Your task to perform on an android device: turn on priority inbox in the gmail app Image 0: 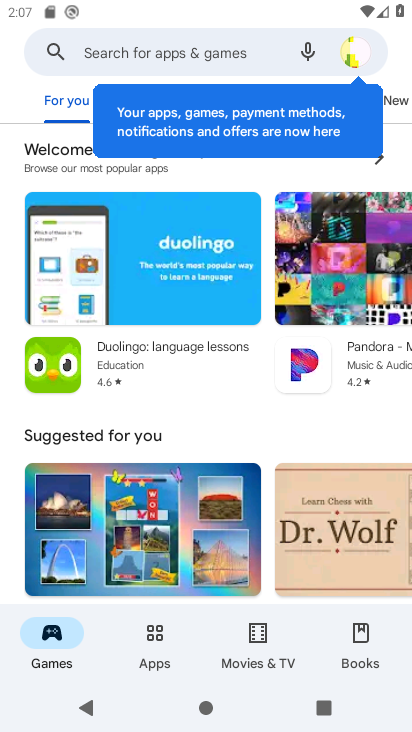
Step 0: press home button
Your task to perform on an android device: turn on priority inbox in the gmail app Image 1: 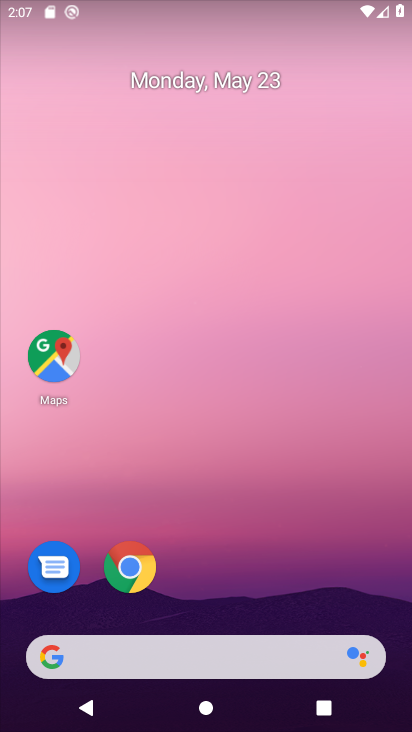
Step 1: drag from (240, 524) to (219, 149)
Your task to perform on an android device: turn on priority inbox in the gmail app Image 2: 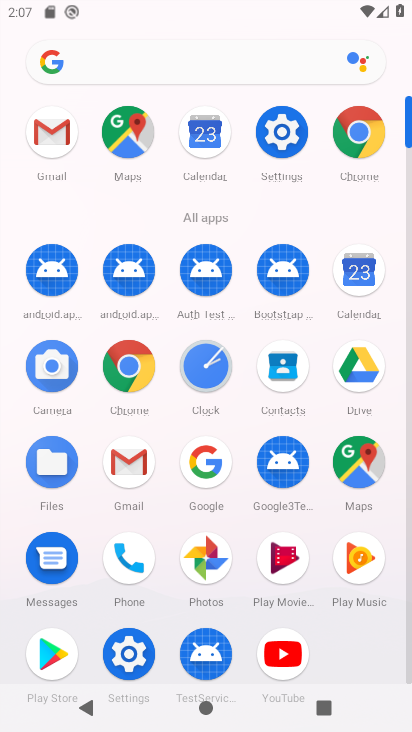
Step 2: click (37, 124)
Your task to perform on an android device: turn on priority inbox in the gmail app Image 3: 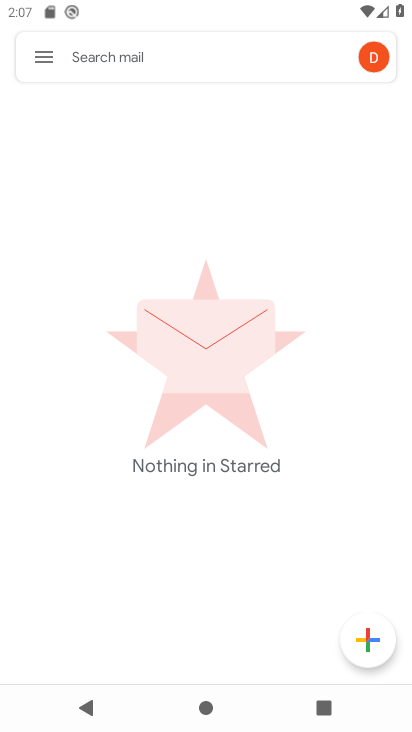
Step 3: click (41, 58)
Your task to perform on an android device: turn on priority inbox in the gmail app Image 4: 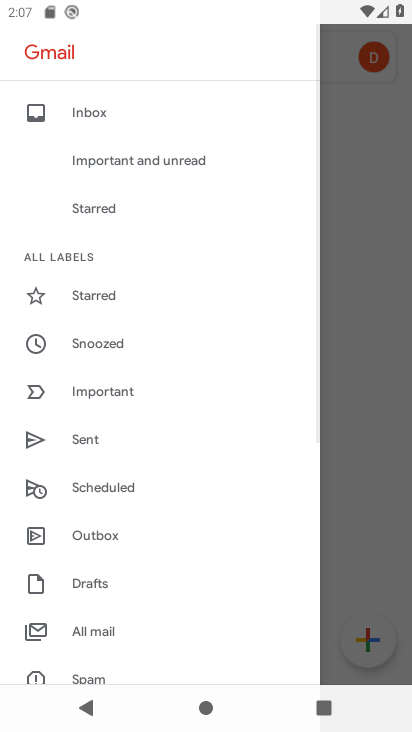
Step 4: drag from (135, 607) to (154, 322)
Your task to perform on an android device: turn on priority inbox in the gmail app Image 5: 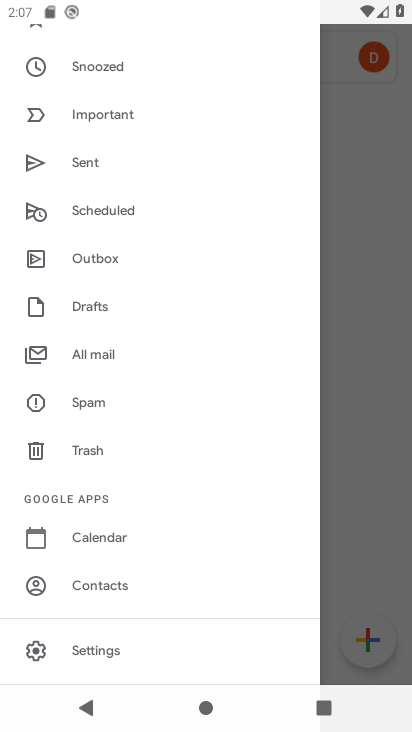
Step 5: click (106, 638)
Your task to perform on an android device: turn on priority inbox in the gmail app Image 6: 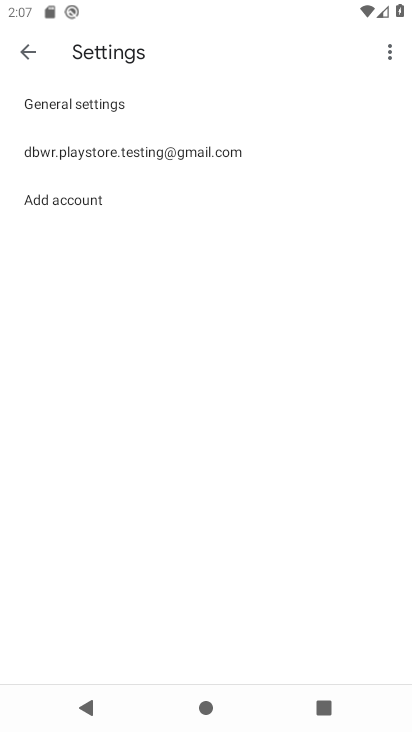
Step 6: click (79, 151)
Your task to perform on an android device: turn on priority inbox in the gmail app Image 7: 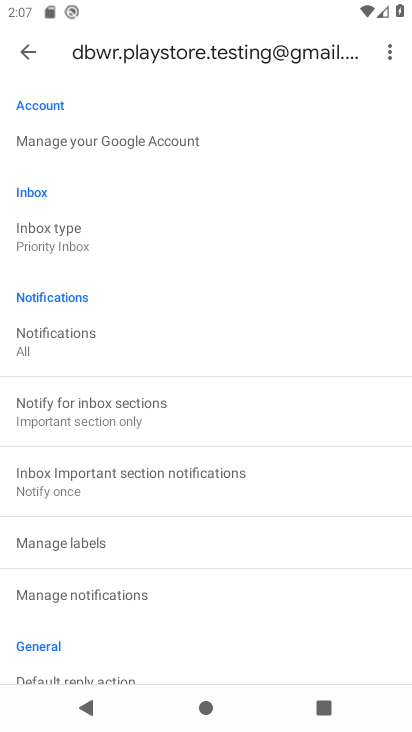
Step 7: drag from (105, 188) to (147, 439)
Your task to perform on an android device: turn on priority inbox in the gmail app Image 8: 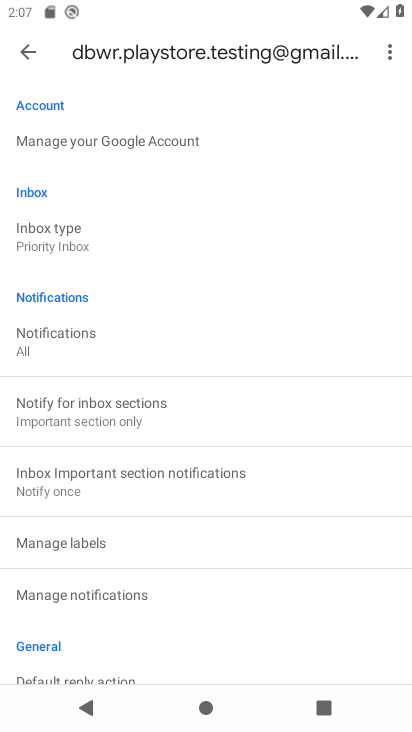
Step 8: click (94, 239)
Your task to perform on an android device: turn on priority inbox in the gmail app Image 9: 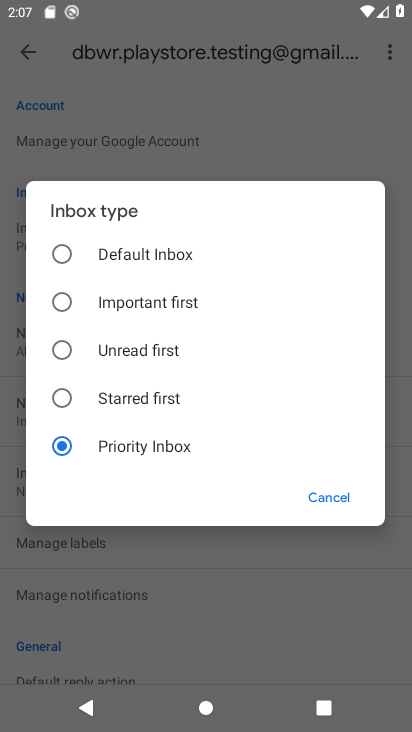
Step 9: task complete